Your task to perform on an android device: Go to Yahoo.com Image 0: 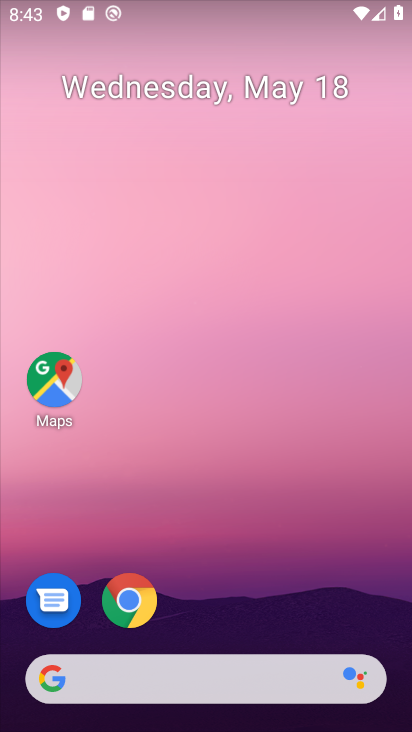
Step 0: click (126, 592)
Your task to perform on an android device: Go to Yahoo.com Image 1: 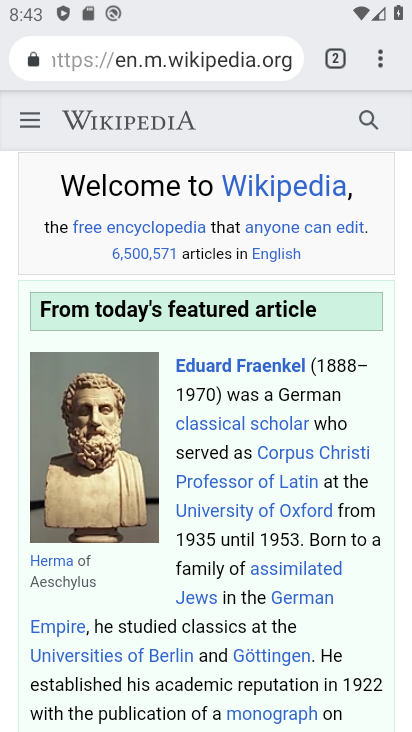
Step 1: click (329, 67)
Your task to perform on an android device: Go to Yahoo.com Image 2: 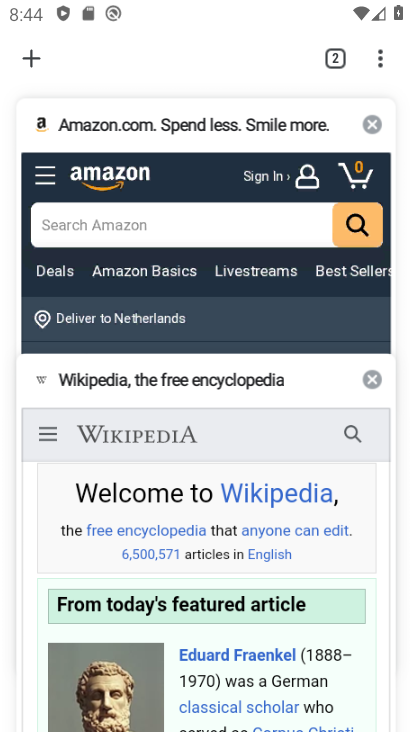
Step 2: click (363, 126)
Your task to perform on an android device: Go to Yahoo.com Image 3: 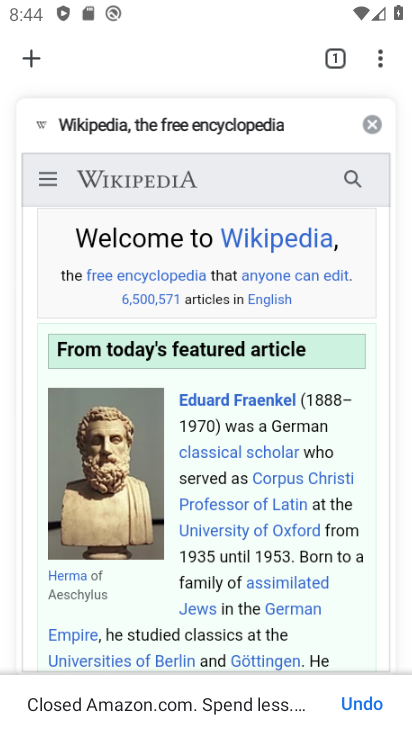
Step 3: click (370, 122)
Your task to perform on an android device: Go to Yahoo.com Image 4: 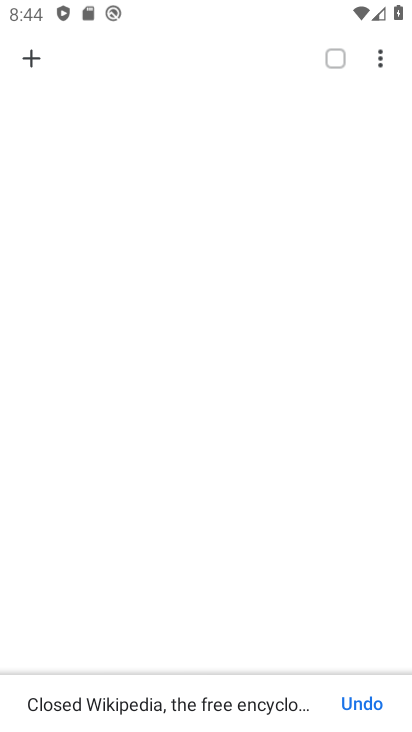
Step 4: click (28, 64)
Your task to perform on an android device: Go to Yahoo.com Image 5: 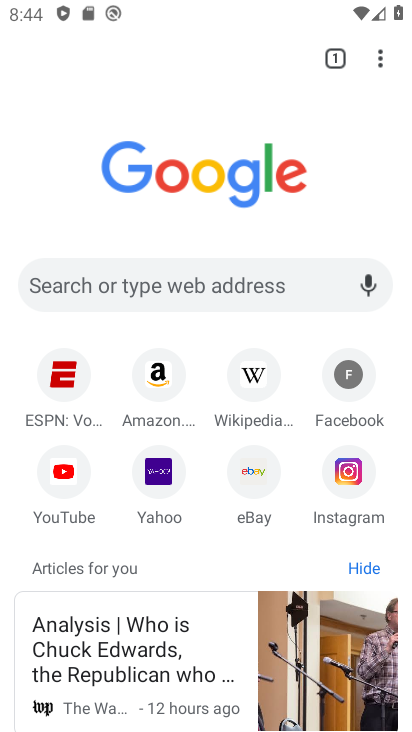
Step 5: click (161, 465)
Your task to perform on an android device: Go to Yahoo.com Image 6: 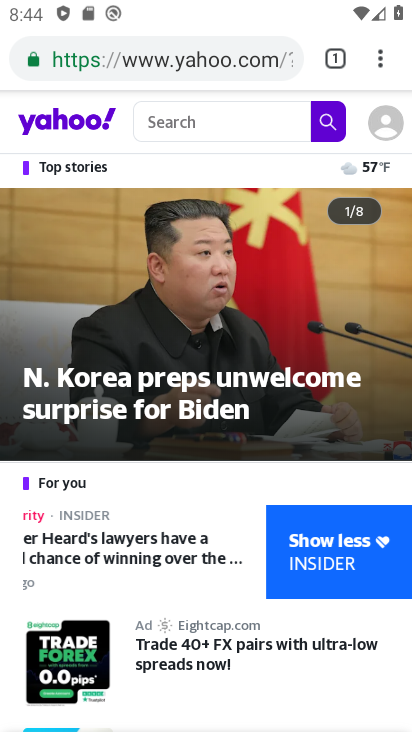
Step 6: task complete